Your task to perform on an android device: Toggle the flashlight Image 0: 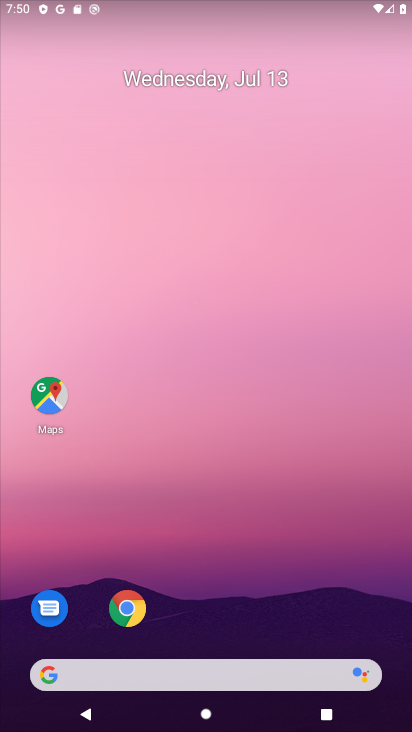
Step 0: click (212, 192)
Your task to perform on an android device: Toggle the flashlight Image 1: 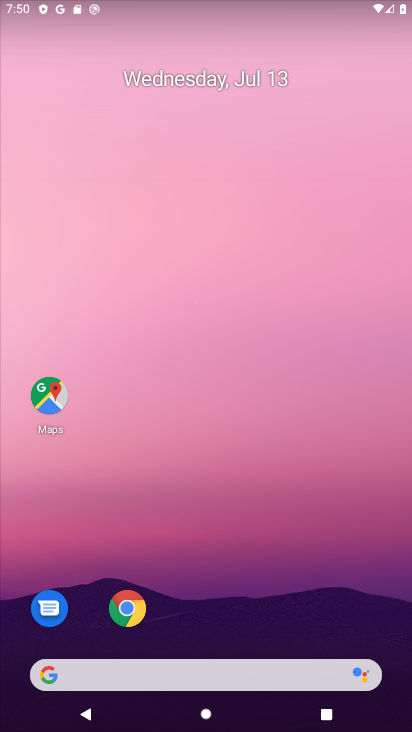
Step 1: task complete